Your task to perform on an android device: change alarm snooze length Image 0: 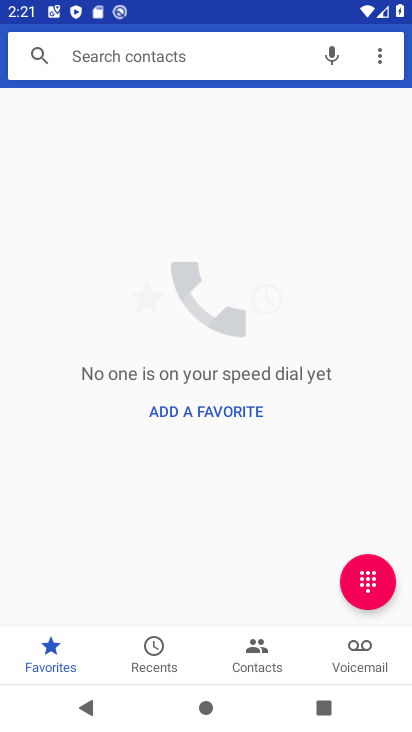
Step 0: press home button
Your task to perform on an android device: change alarm snooze length Image 1: 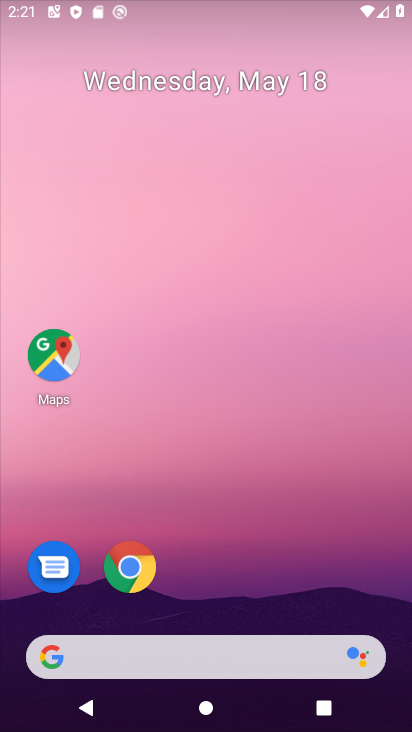
Step 1: drag from (288, 590) to (286, 189)
Your task to perform on an android device: change alarm snooze length Image 2: 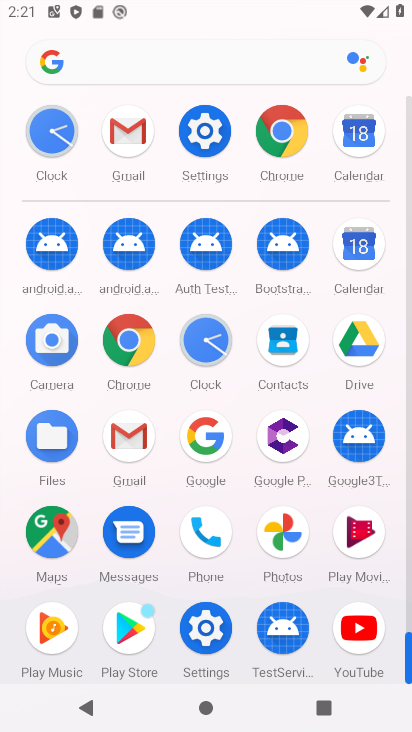
Step 2: click (204, 345)
Your task to perform on an android device: change alarm snooze length Image 3: 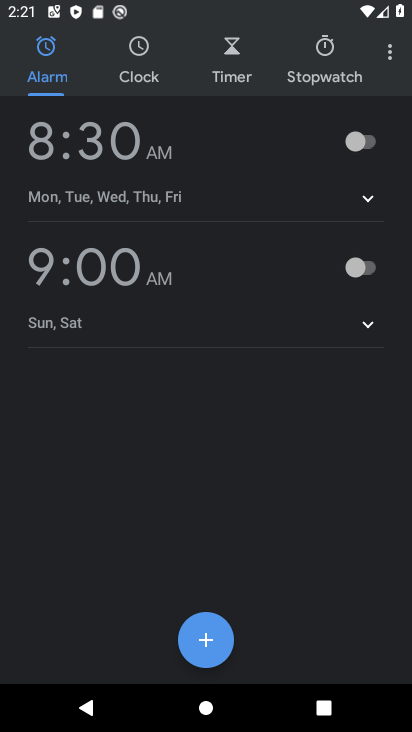
Step 3: click (393, 32)
Your task to perform on an android device: change alarm snooze length Image 4: 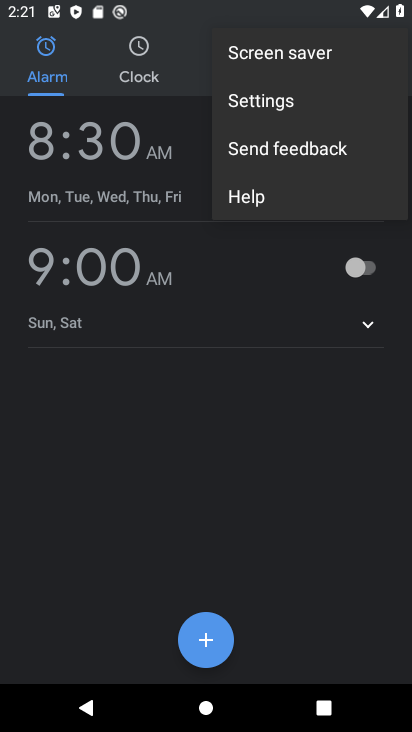
Step 4: click (320, 95)
Your task to perform on an android device: change alarm snooze length Image 5: 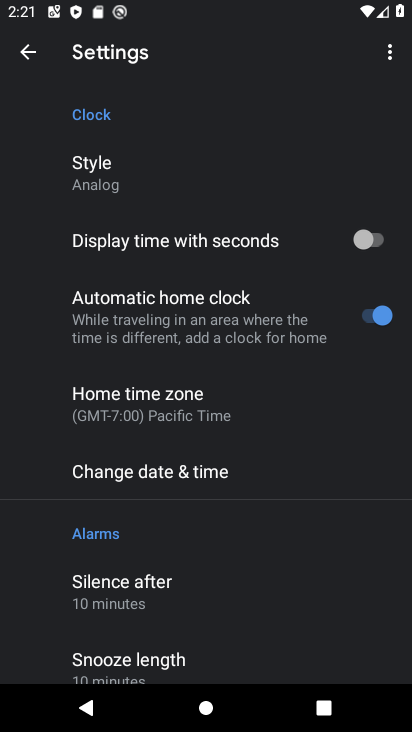
Step 5: drag from (263, 554) to (374, 195)
Your task to perform on an android device: change alarm snooze length Image 6: 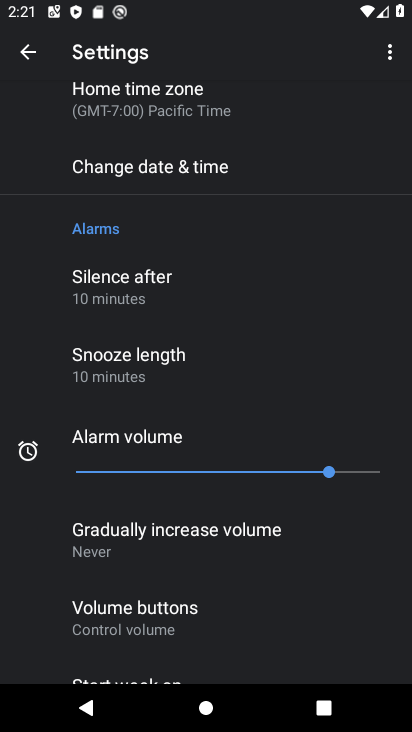
Step 6: click (181, 355)
Your task to perform on an android device: change alarm snooze length Image 7: 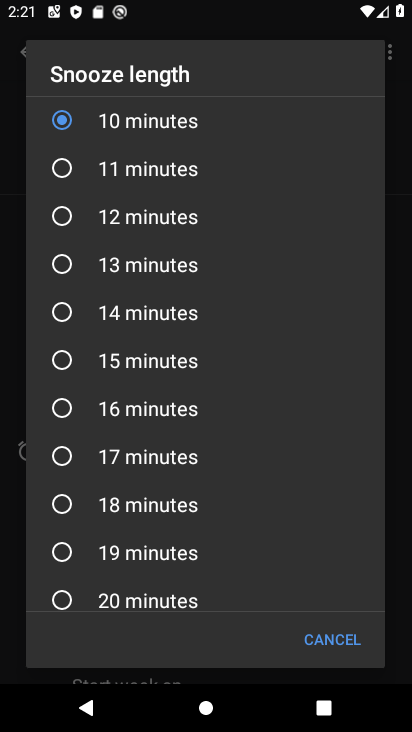
Step 7: click (168, 173)
Your task to perform on an android device: change alarm snooze length Image 8: 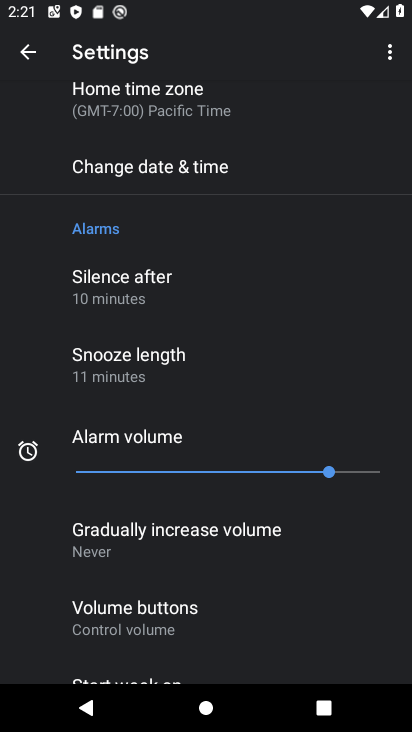
Step 8: task complete